Your task to perform on an android device: turn on translation in the chrome app Image 0: 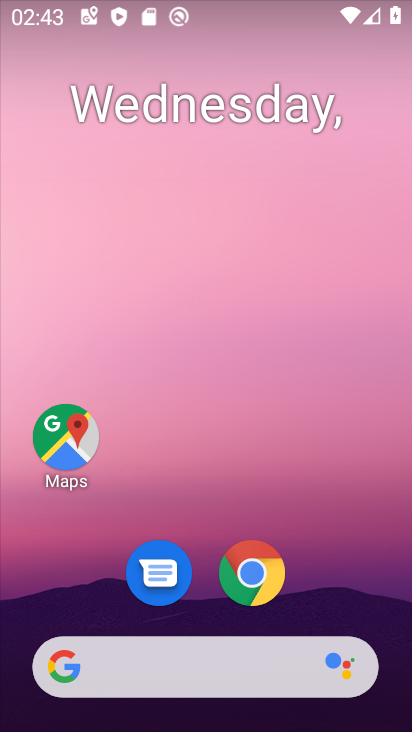
Step 0: click (255, 572)
Your task to perform on an android device: turn on translation in the chrome app Image 1: 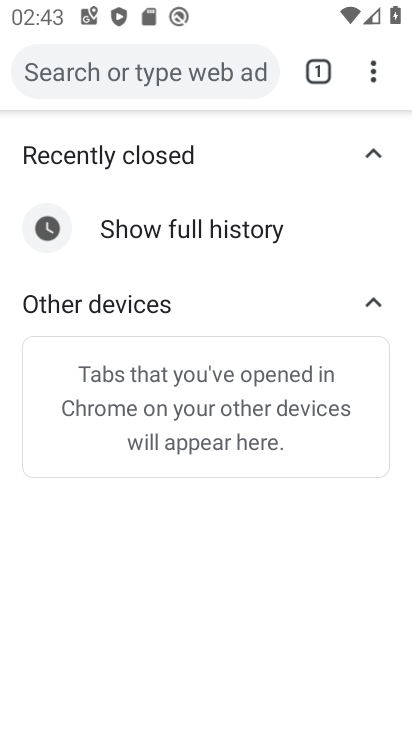
Step 1: click (373, 76)
Your task to perform on an android device: turn on translation in the chrome app Image 2: 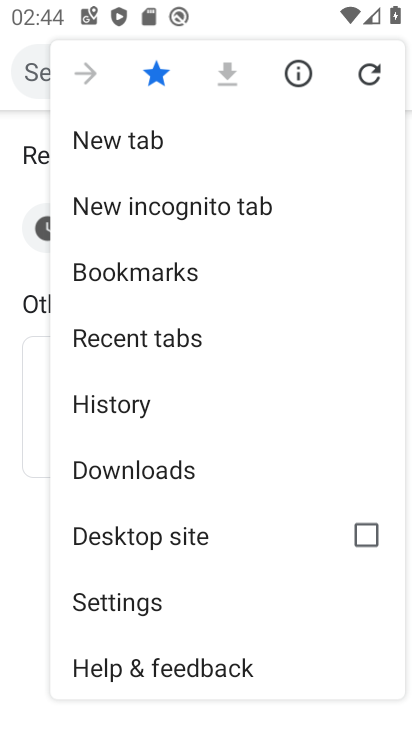
Step 2: click (126, 601)
Your task to perform on an android device: turn on translation in the chrome app Image 3: 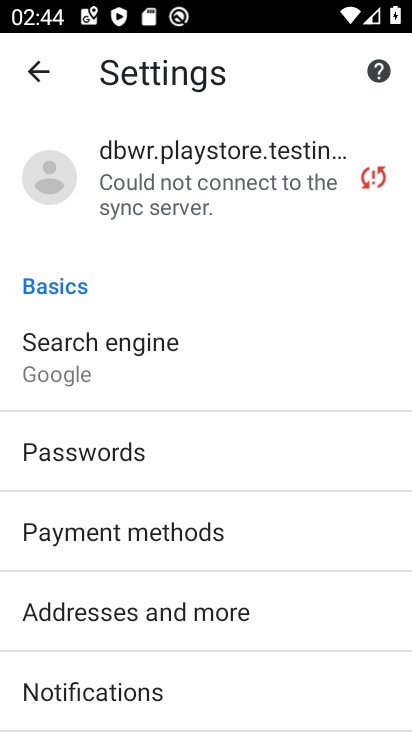
Step 3: drag from (250, 374) to (313, 247)
Your task to perform on an android device: turn on translation in the chrome app Image 4: 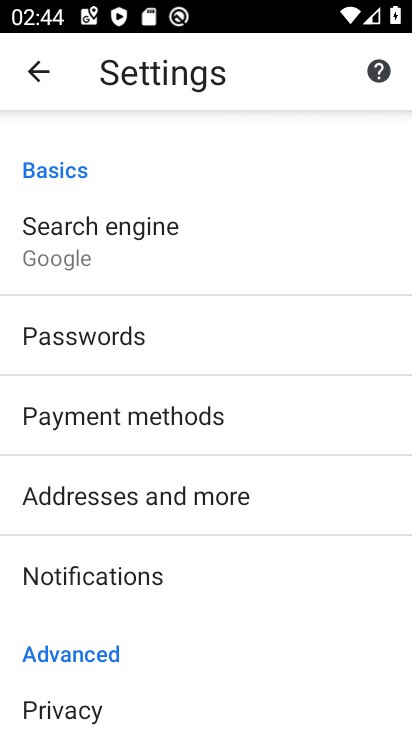
Step 4: drag from (231, 376) to (316, 247)
Your task to perform on an android device: turn on translation in the chrome app Image 5: 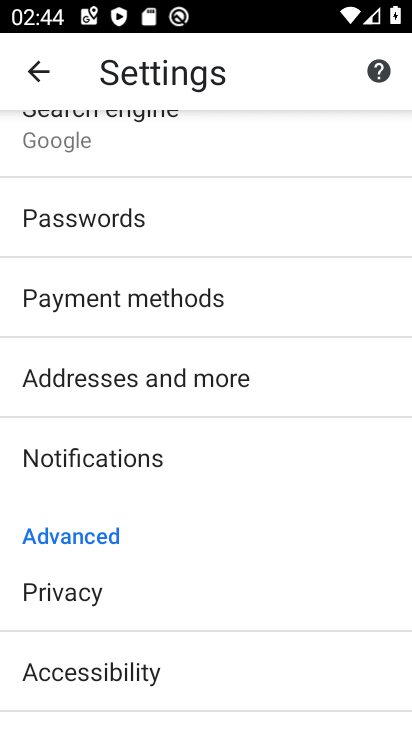
Step 5: drag from (173, 477) to (298, 299)
Your task to perform on an android device: turn on translation in the chrome app Image 6: 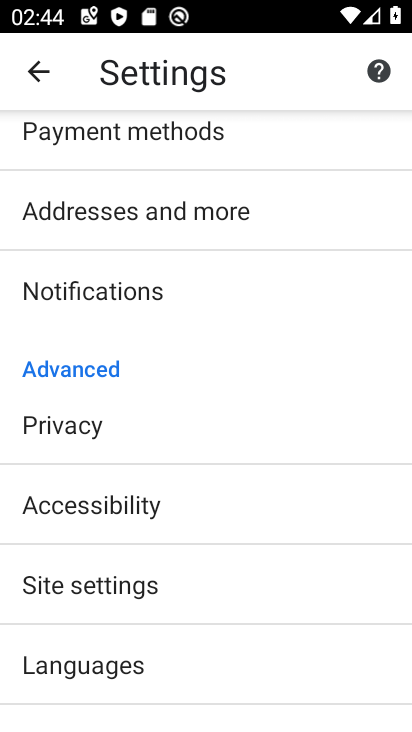
Step 6: drag from (133, 646) to (217, 516)
Your task to perform on an android device: turn on translation in the chrome app Image 7: 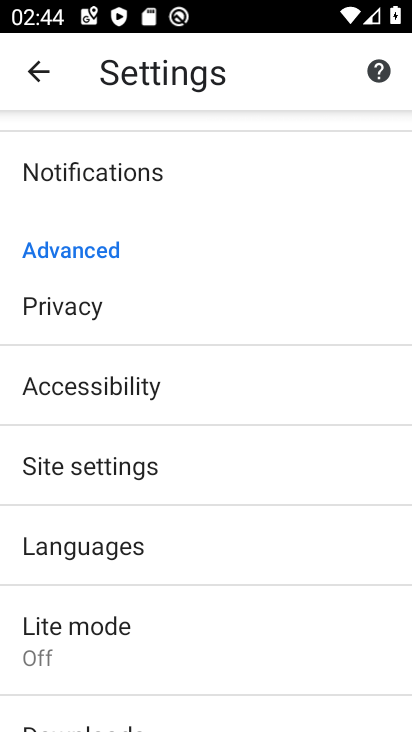
Step 7: click (112, 541)
Your task to perform on an android device: turn on translation in the chrome app Image 8: 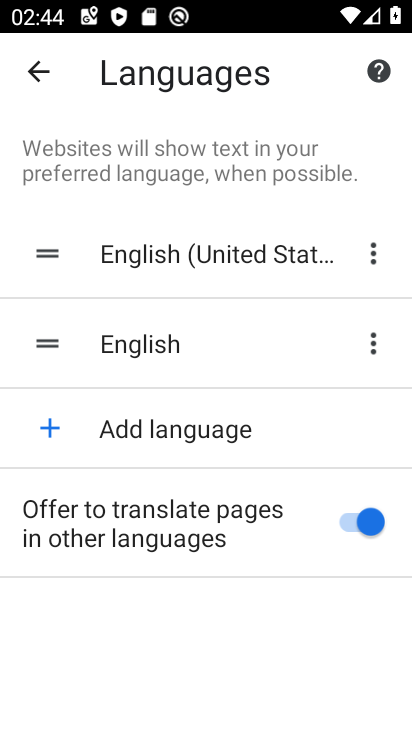
Step 8: task complete